Your task to perform on an android device: Go to notification settings Image 0: 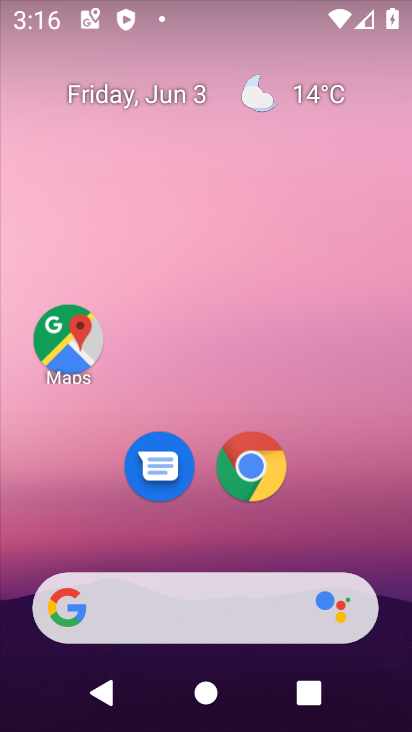
Step 0: drag from (332, 448) to (291, 194)
Your task to perform on an android device: Go to notification settings Image 1: 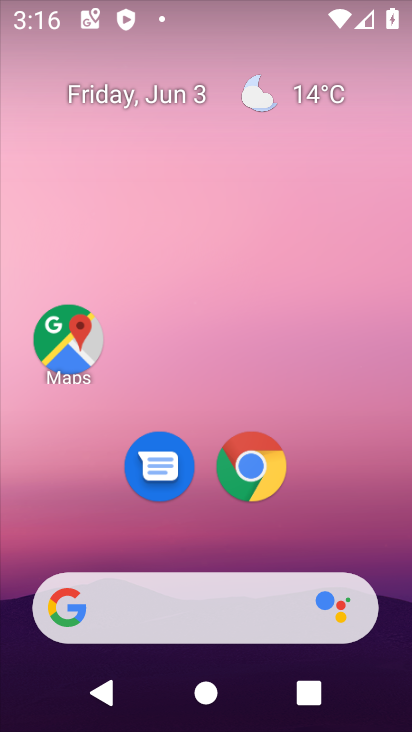
Step 1: drag from (342, 534) to (260, 171)
Your task to perform on an android device: Go to notification settings Image 2: 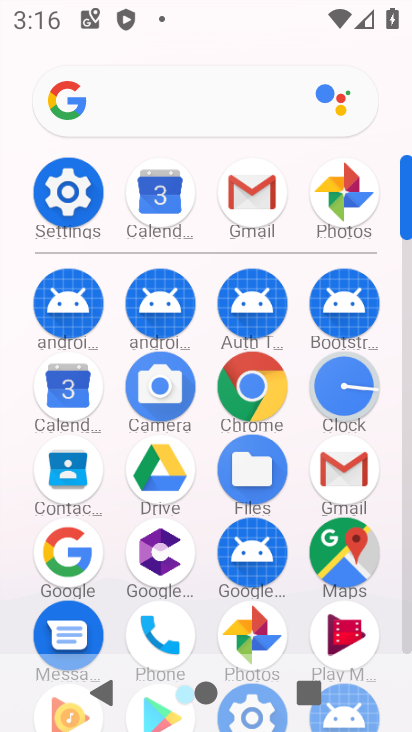
Step 2: click (61, 192)
Your task to perform on an android device: Go to notification settings Image 3: 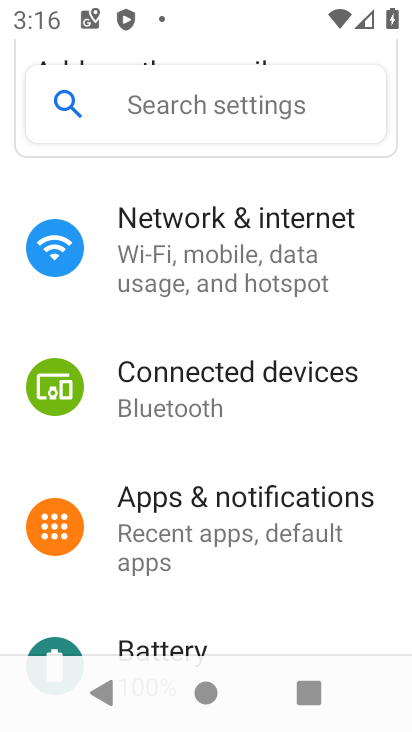
Step 3: click (250, 547)
Your task to perform on an android device: Go to notification settings Image 4: 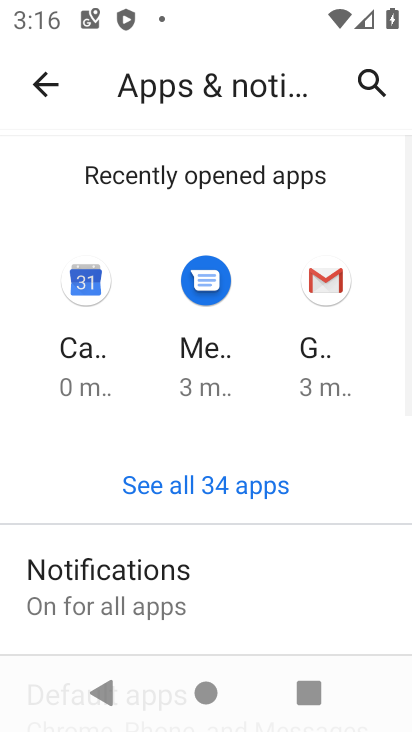
Step 4: task complete